Your task to perform on an android device: Turn off the flashlight Image 0: 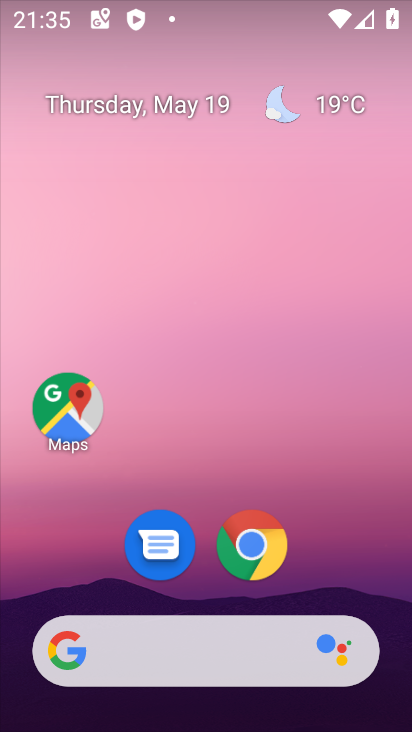
Step 0: click (260, 556)
Your task to perform on an android device: Turn off the flashlight Image 1: 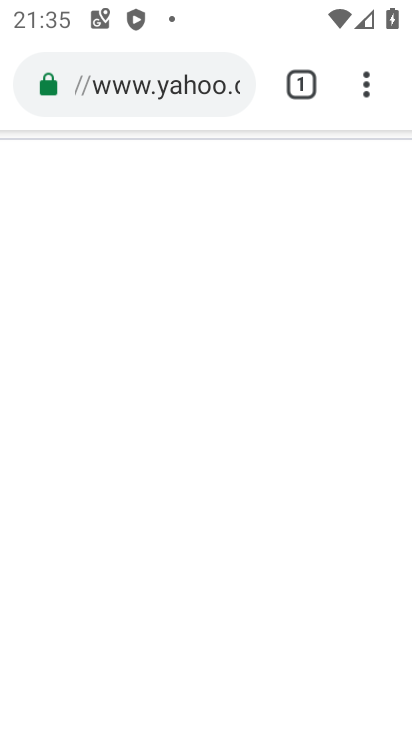
Step 1: press home button
Your task to perform on an android device: Turn off the flashlight Image 2: 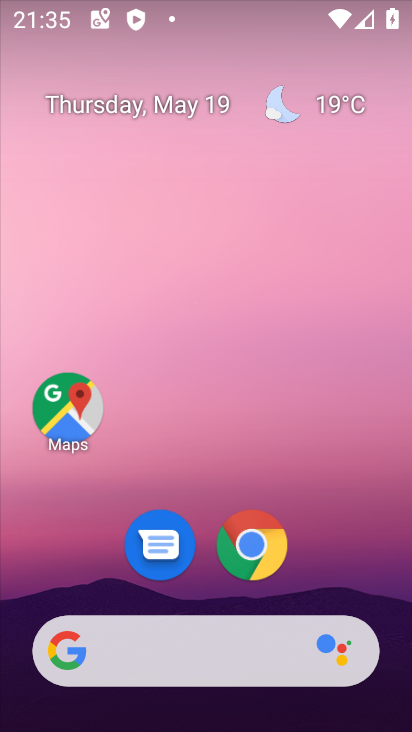
Step 2: drag from (334, 590) to (312, 83)
Your task to perform on an android device: Turn off the flashlight Image 3: 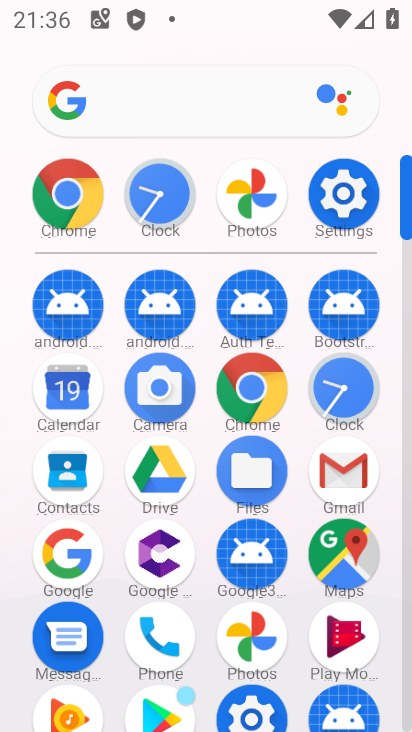
Step 3: click (326, 201)
Your task to perform on an android device: Turn off the flashlight Image 4: 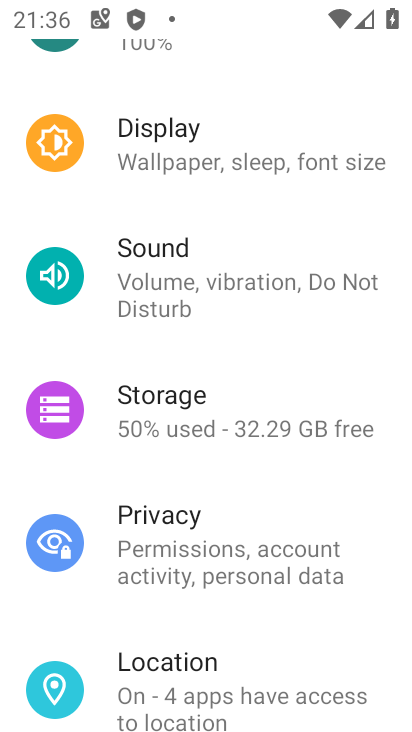
Step 4: task complete